Your task to perform on an android device: turn off location Image 0: 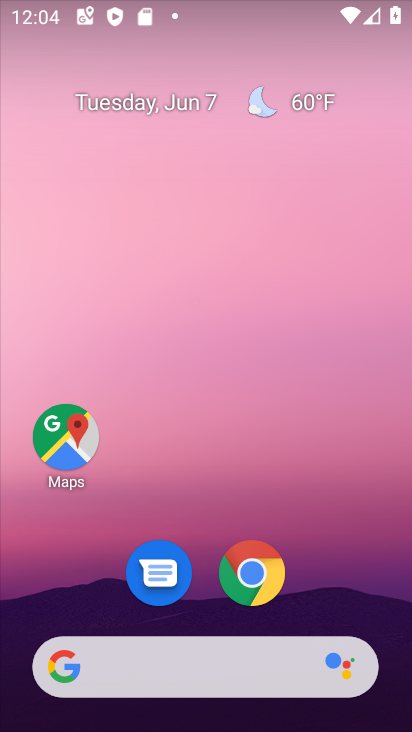
Step 0: press home button
Your task to perform on an android device: turn off location Image 1: 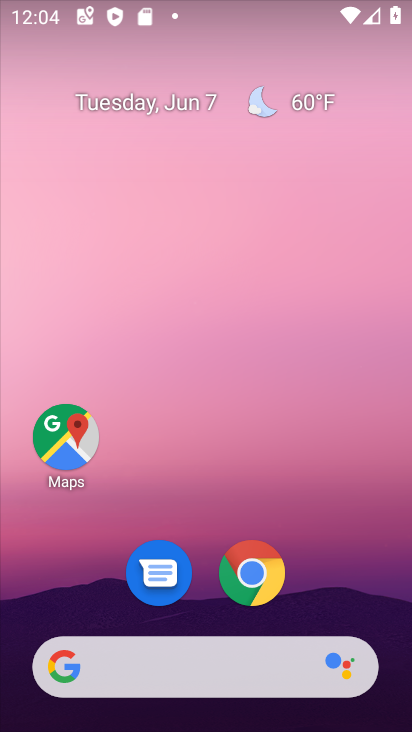
Step 1: drag from (373, 595) to (332, 162)
Your task to perform on an android device: turn off location Image 2: 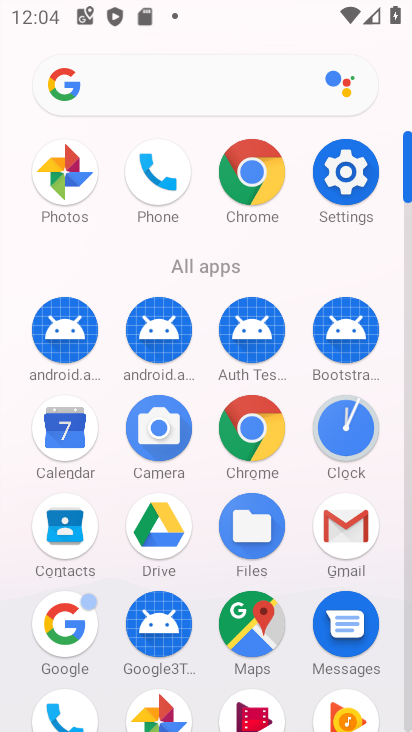
Step 2: click (341, 206)
Your task to perform on an android device: turn off location Image 3: 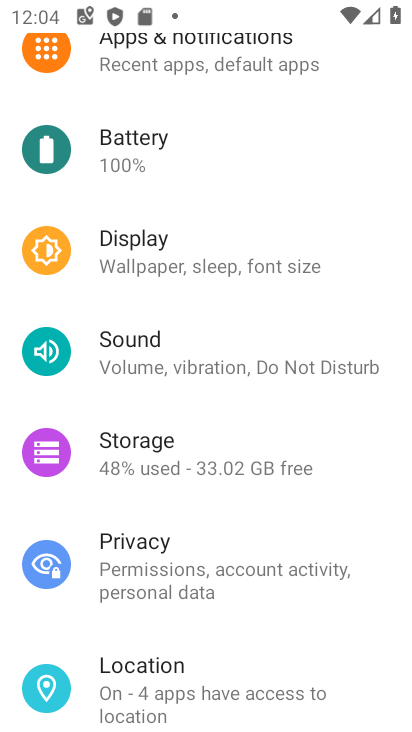
Step 3: drag from (227, 648) to (198, 375)
Your task to perform on an android device: turn off location Image 4: 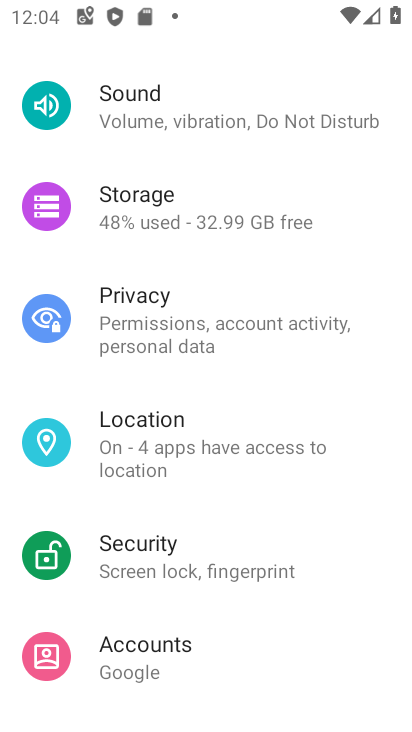
Step 4: click (175, 420)
Your task to perform on an android device: turn off location Image 5: 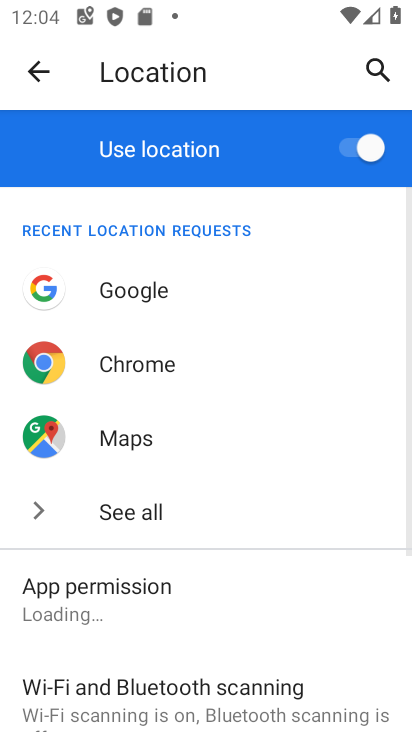
Step 5: click (245, 173)
Your task to perform on an android device: turn off location Image 6: 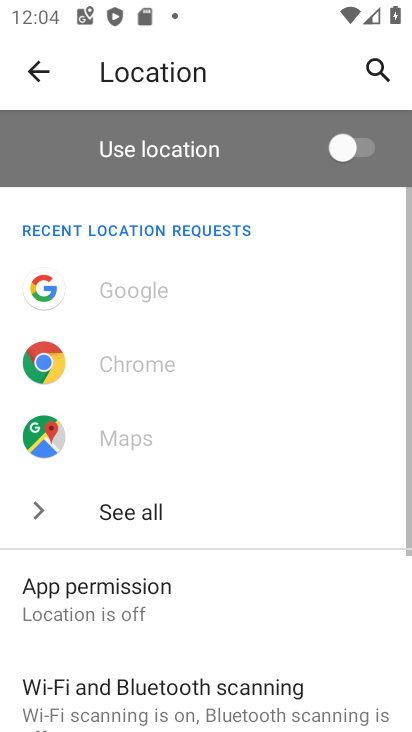
Step 6: task complete